Your task to perform on an android device: change timer sound Image 0: 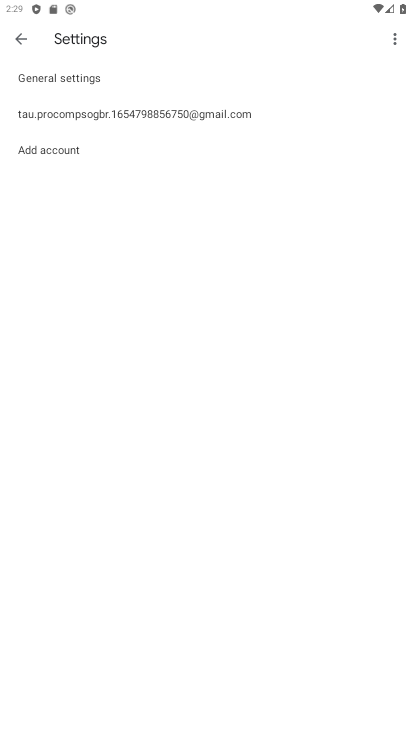
Step 0: press back button
Your task to perform on an android device: change timer sound Image 1: 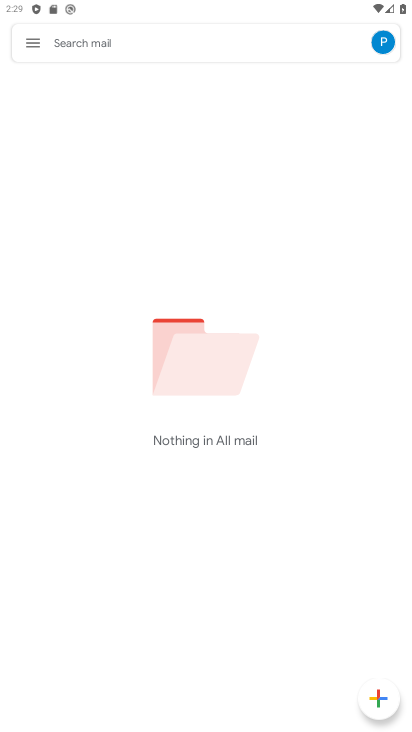
Step 1: press back button
Your task to perform on an android device: change timer sound Image 2: 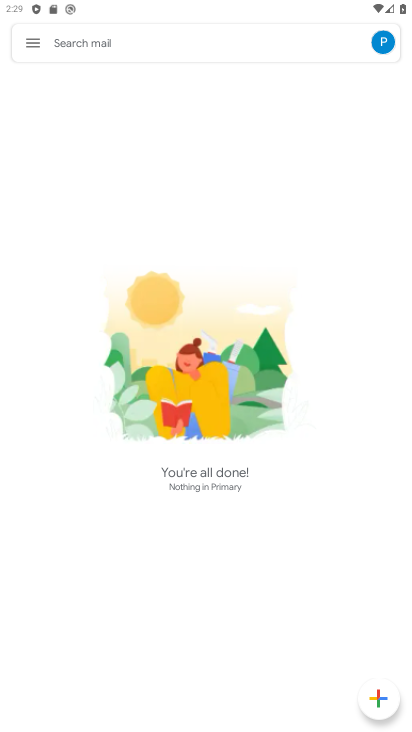
Step 2: press back button
Your task to perform on an android device: change timer sound Image 3: 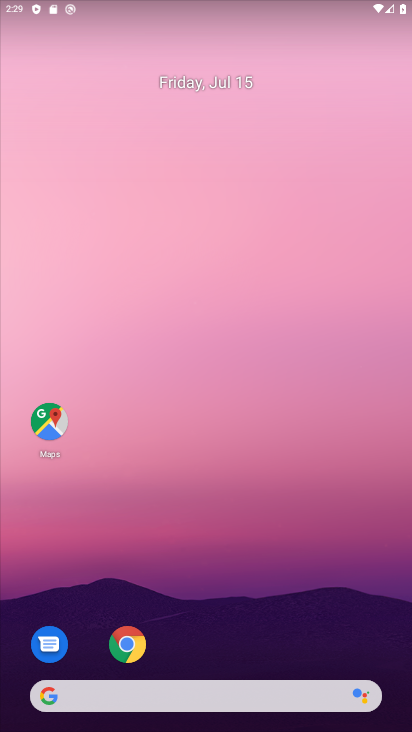
Step 3: drag from (237, 630) to (289, 62)
Your task to perform on an android device: change timer sound Image 4: 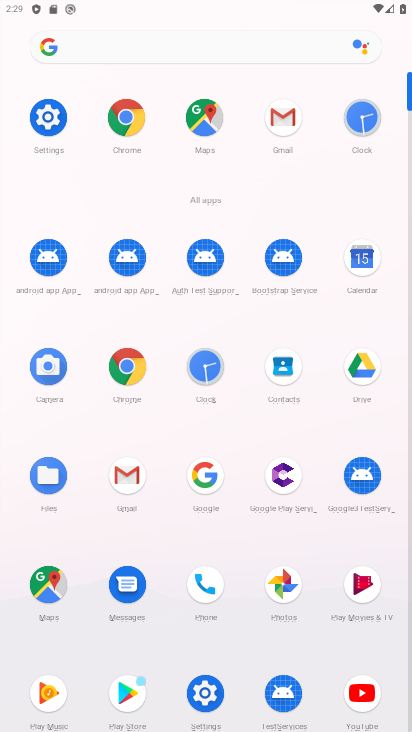
Step 4: click (354, 119)
Your task to perform on an android device: change timer sound Image 5: 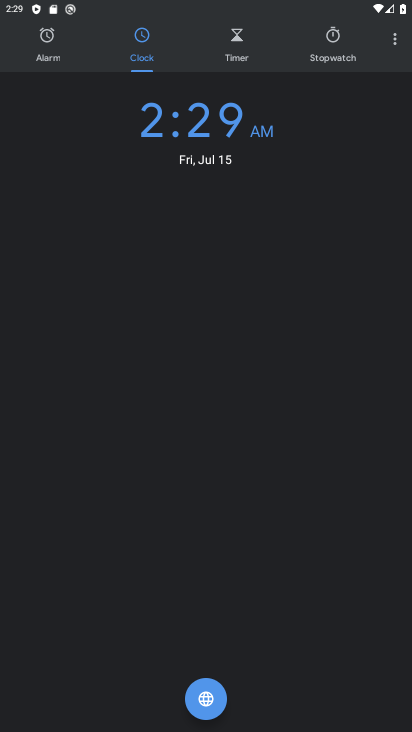
Step 5: click (393, 41)
Your task to perform on an android device: change timer sound Image 6: 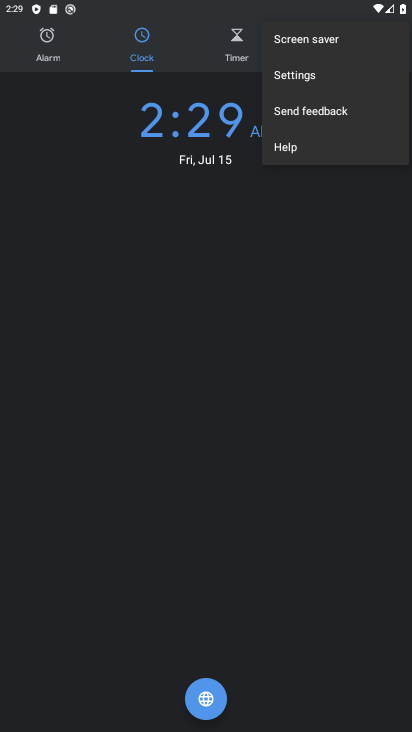
Step 6: click (322, 78)
Your task to perform on an android device: change timer sound Image 7: 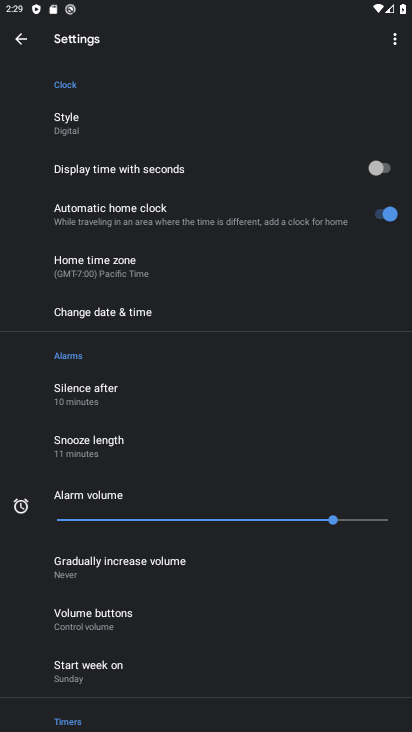
Step 7: drag from (121, 655) to (176, 305)
Your task to perform on an android device: change timer sound Image 8: 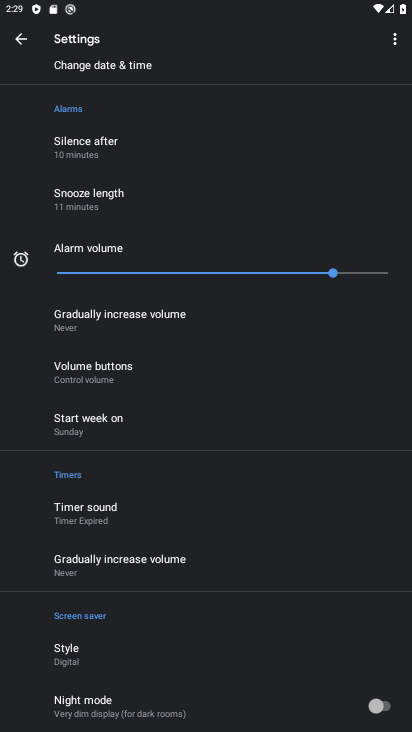
Step 8: drag from (140, 331) to (135, 600)
Your task to perform on an android device: change timer sound Image 9: 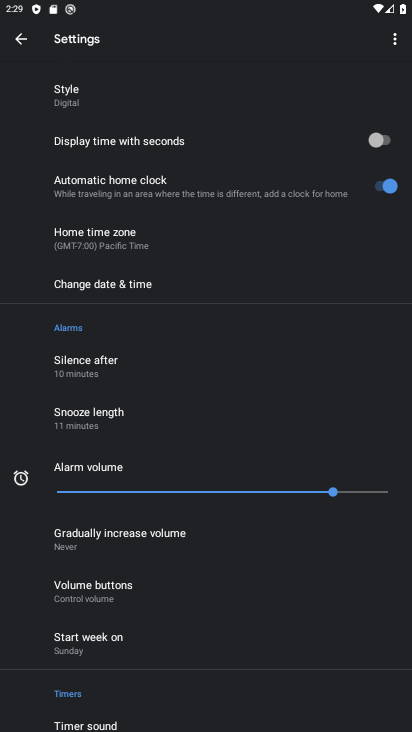
Step 9: click (72, 715)
Your task to perform on an android device: change timer sound Image 10: 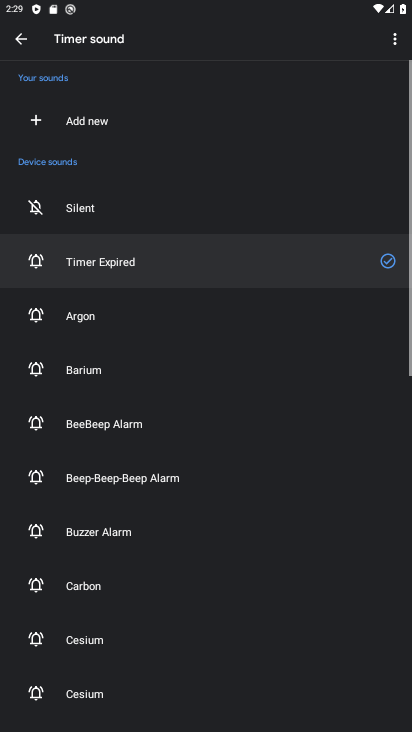
Step 10: click (120, 316)
Your task to perform on an android device: change timer sound Image 11: 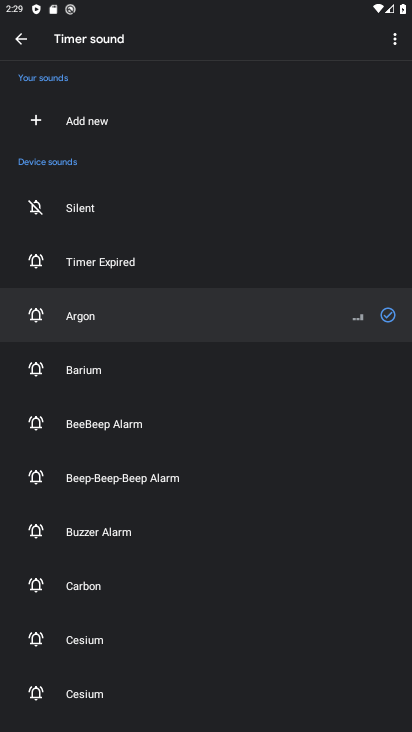
Step 11: task complete